Your task to perform on an android device: turn off location Image 0: 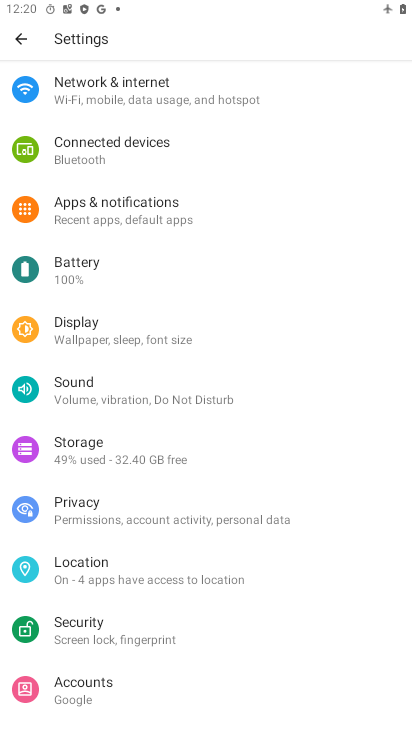
Step 0: drag from (222, 628) to (304, 251)
Your task to perform on an android device: turn off location Image 1: 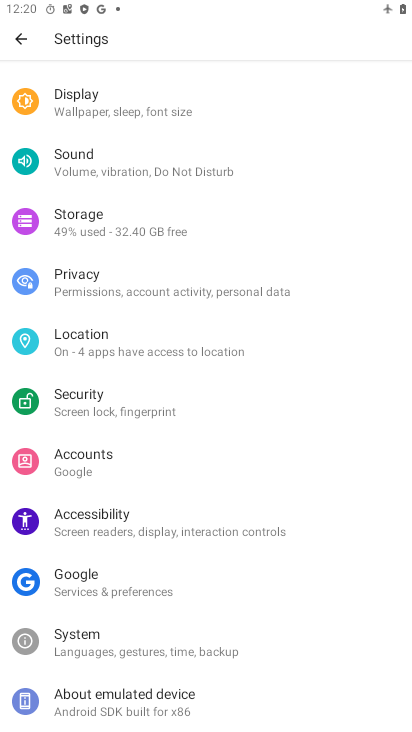
Step 1: click (120, 331)
Your task to perform on an android device: turn off location Image 2: 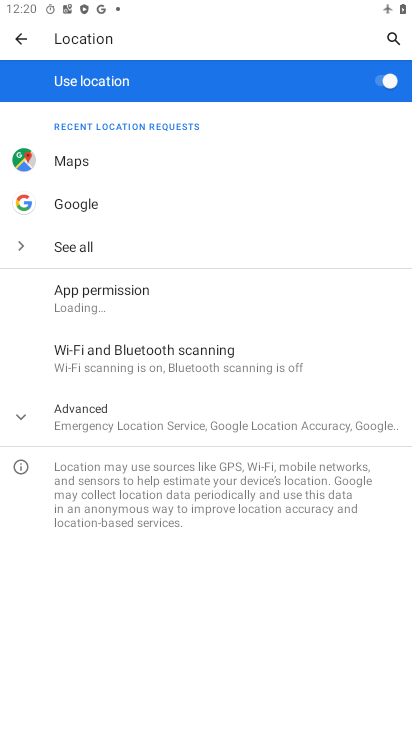
Step 2: click (386, 75)
Your task to perform on an android device: turn off location Image 3: 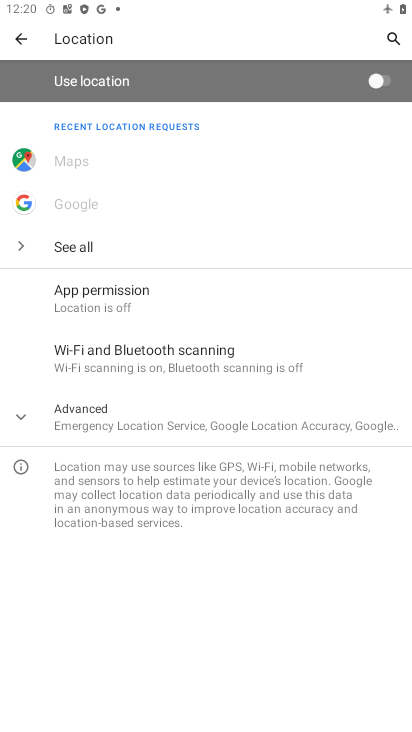
Step 3: task complete